Your task to perform on an android device: uninstall "The Home Depot" Image 0: 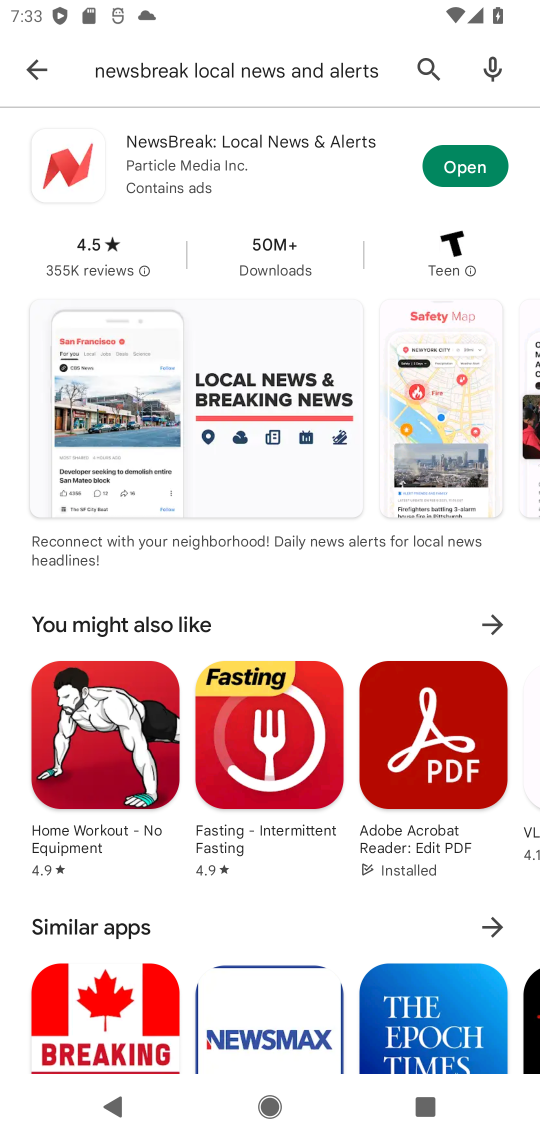
Step 0: click (430, 52)
Your task to perform on an android device: uninstall "The Home Depot" Image 1: 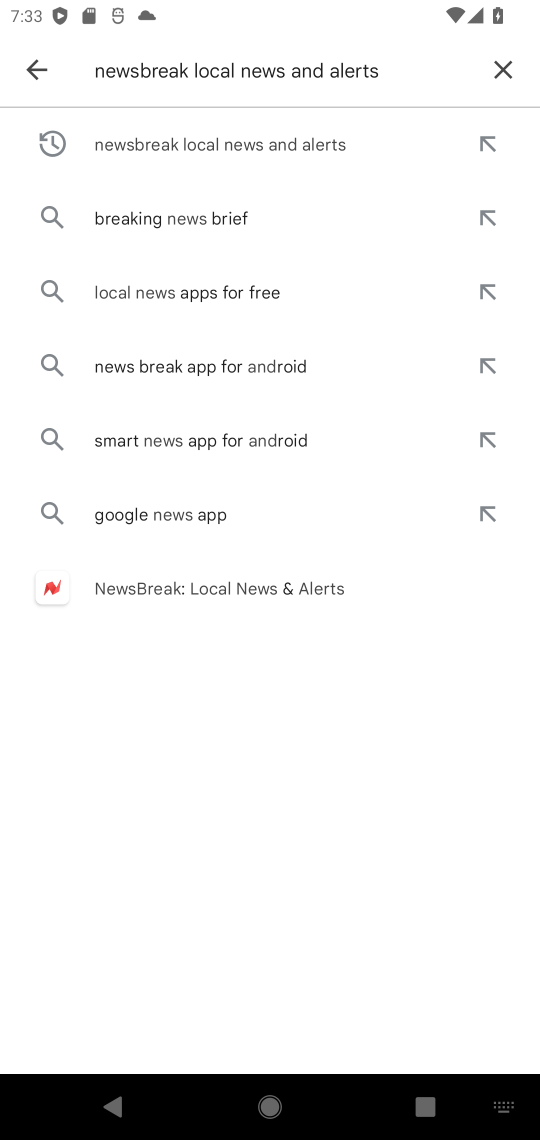
Step 1: click (504, 62)
Your task to perform on an android device: uninstall "The Home Depot" Image 2: 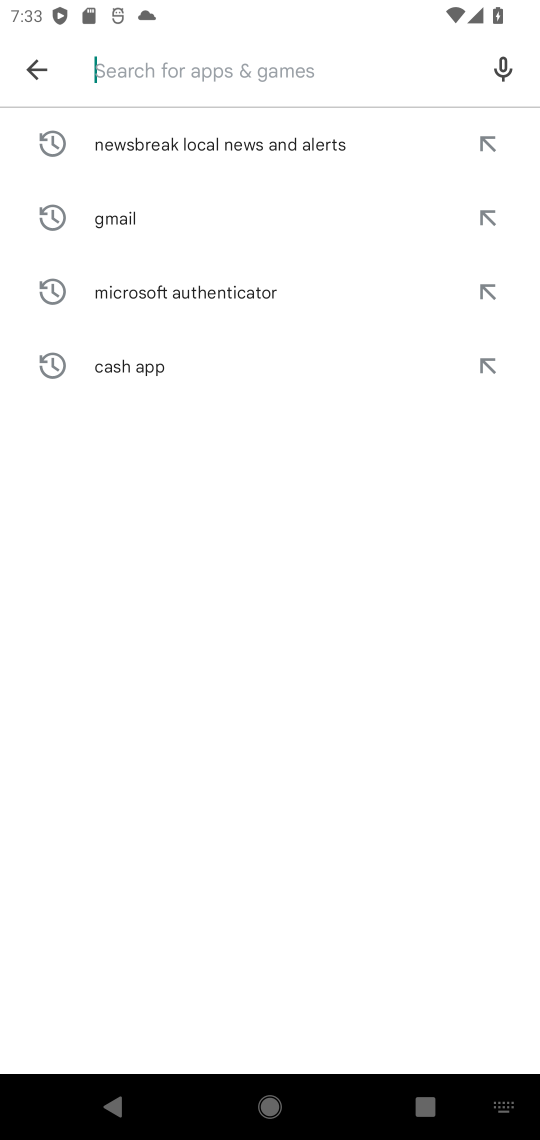
Step 2: type "the home depot"
Your task to perform on an android device: uninstall "The Home Depot" Image 3: 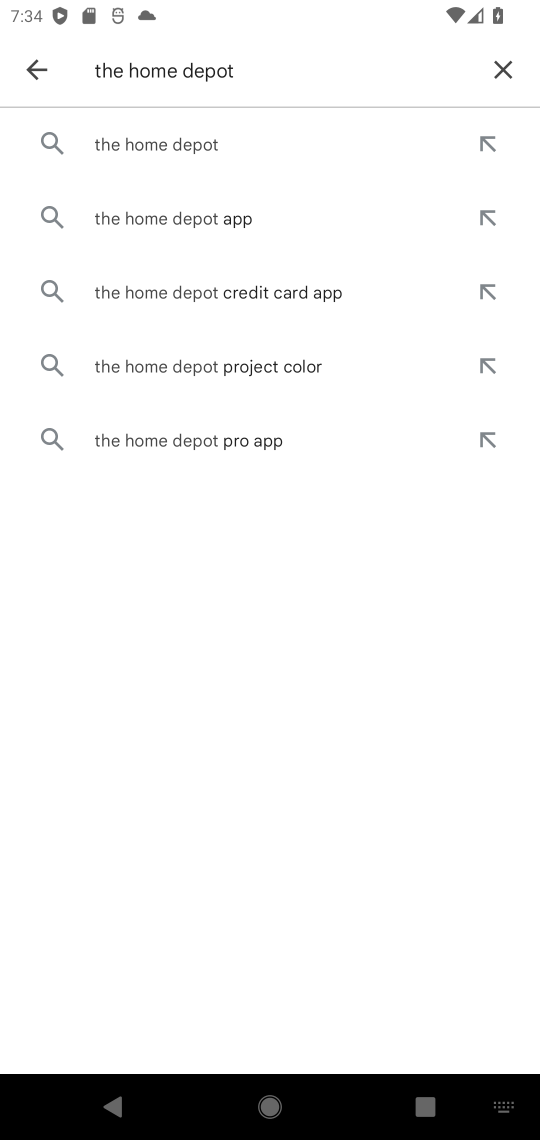
Step 3: click (166, 155)
Your task to perform on an android device: uninstall "The Home Depot" Image 4: 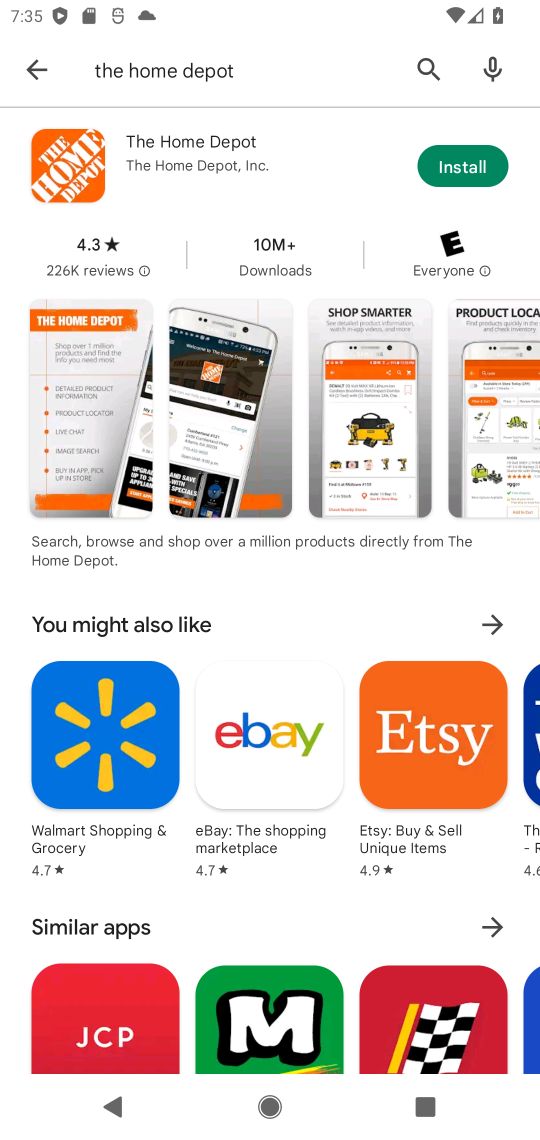
Step 4: task complete